Your task to perform on an android device: Find coffee shops on Maps Image 0: 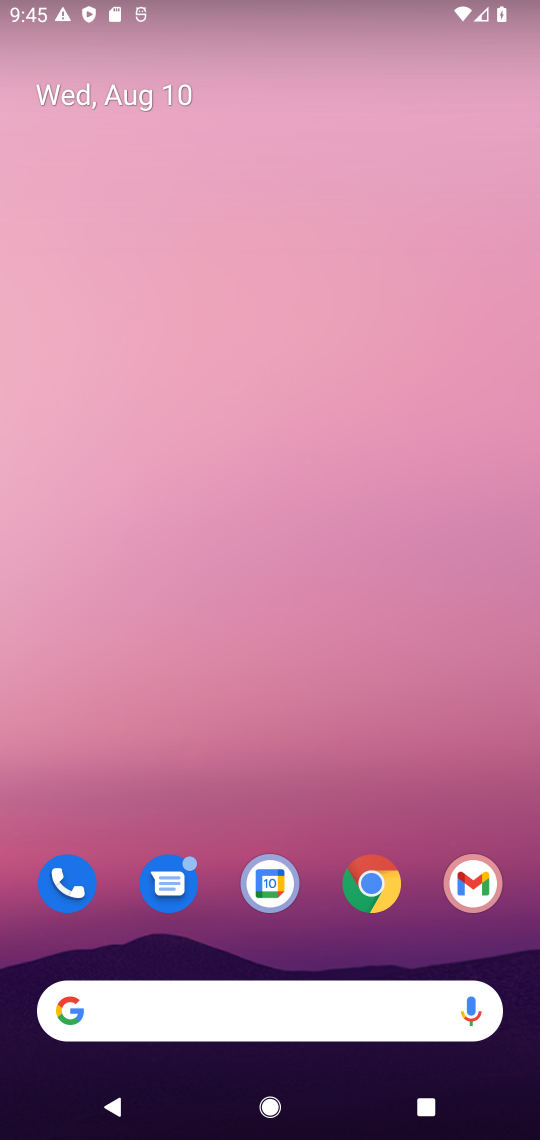
Step 0: drag from (402, 687) to (453, 210)
Your task to perform on an android device: Find coffee shops on Maps Image 1: 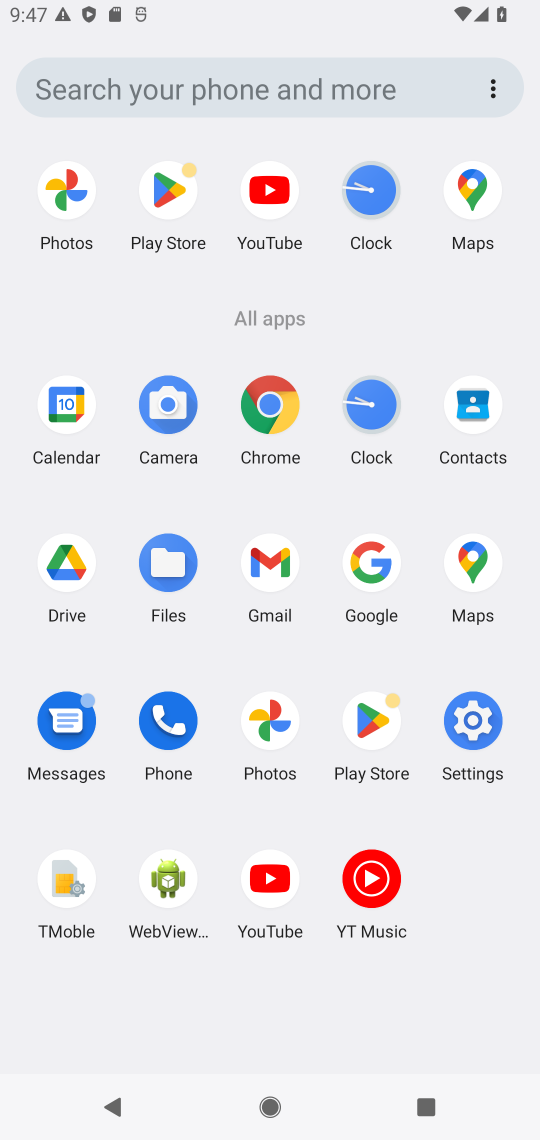
Step 1: click (470, 196)
Your task to perform on an android device: Find coffee shops on Maps Image 2: 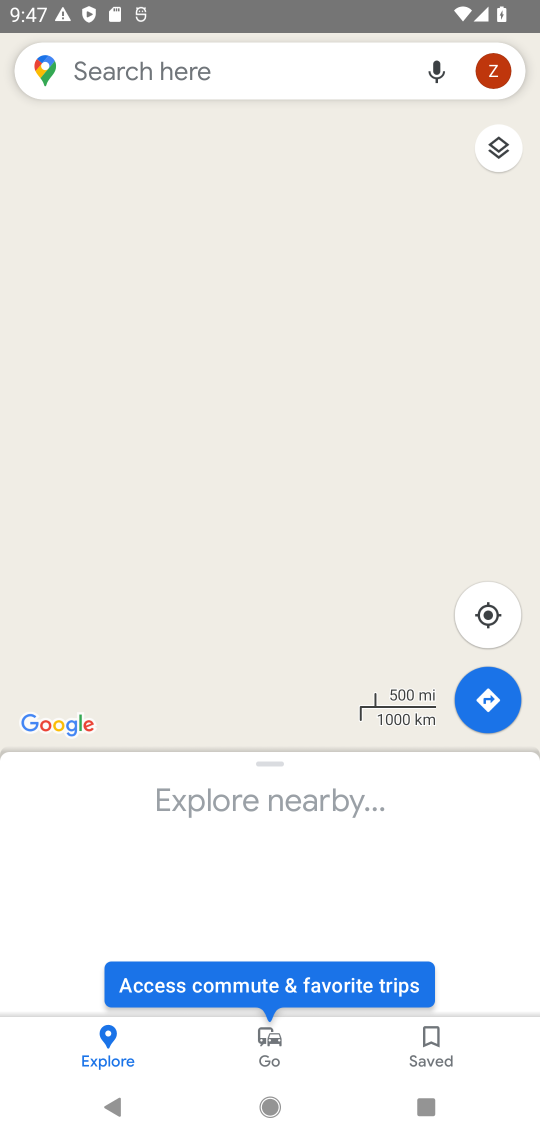
Step 2: click (233, 70)
Your task to perform on an android device: Find coffee shops on Maps Image 3: 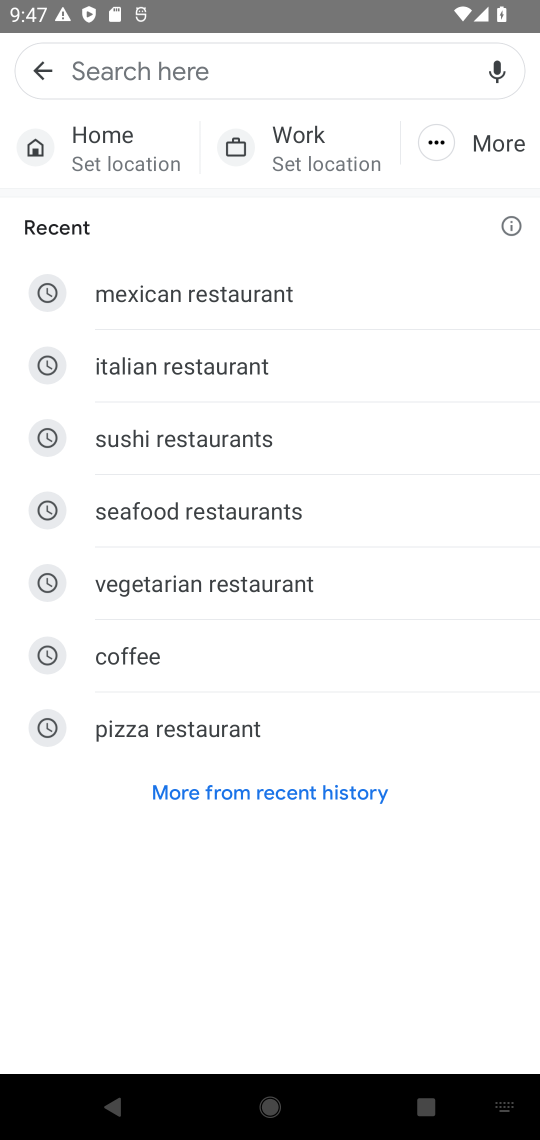
Step 3: type "coffee shops"
Your task to perform on an android device: Find coffee shops on Maps Image 4: 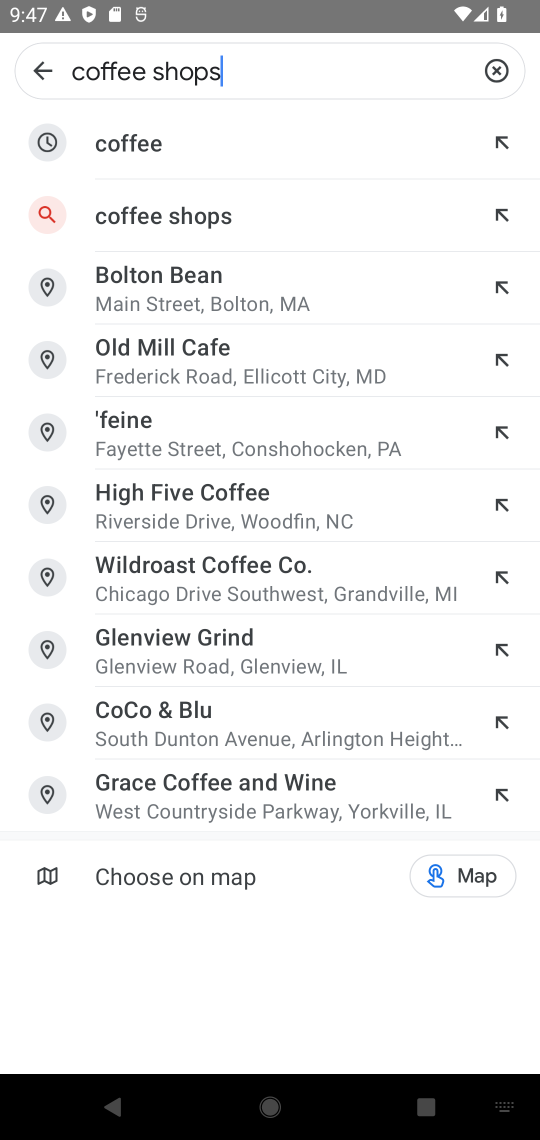
Step 4: click (144, 213)
Your task to perform on an android device: Find coffee shops on Maps Image 5: 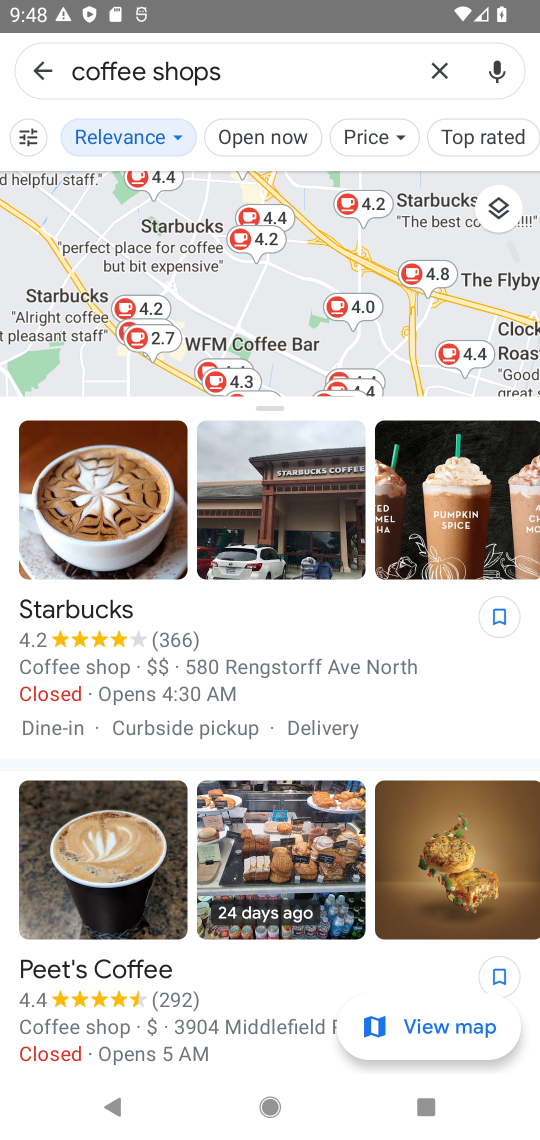
Step 5: task complete